Your task to perform on an android device: change the clock display to analog Image 0: 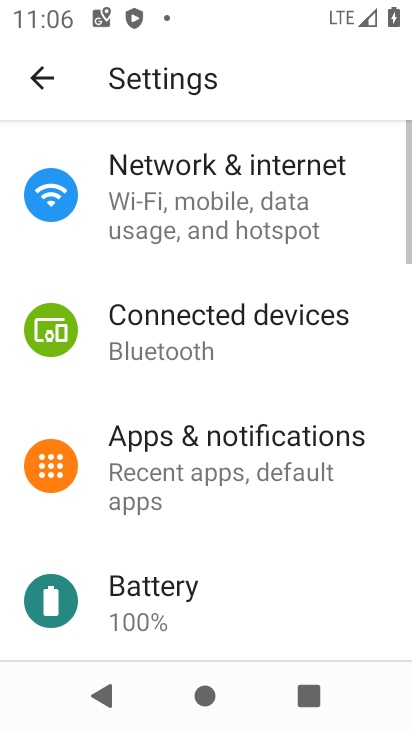
Step 0: press home button
Your task to perform on an android device: change the clock display to analog Image 1: 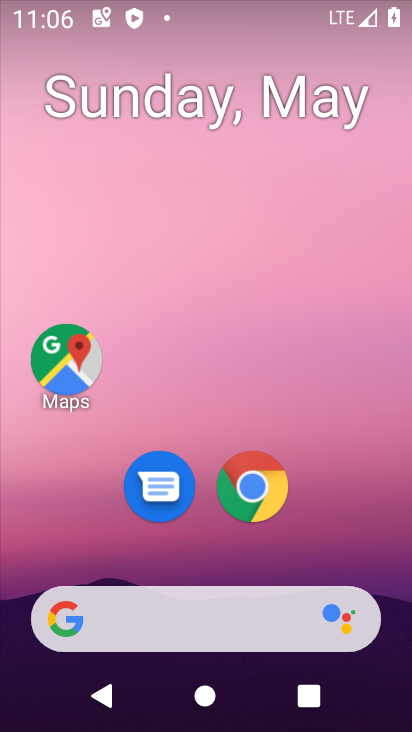
Step 1: drag from (280, 563) to (213, 170)
Your task to perform on an android device: change the clock display to analog Image 2: 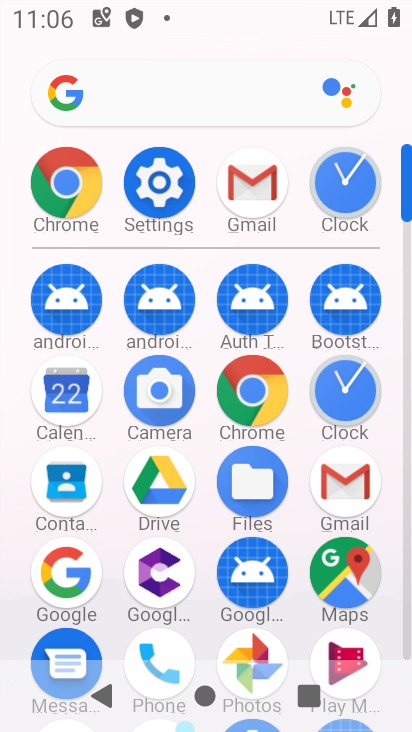
Step 2: click (353, 171)
Your task to perform on an android device: change the clock display to analog Image 3: 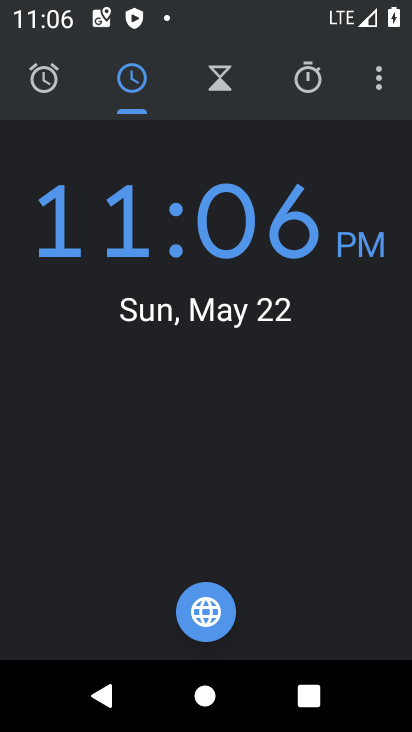
Step 3: click (383, 82)
Your task to perform on an android device: change the clock display to analog Image 4: 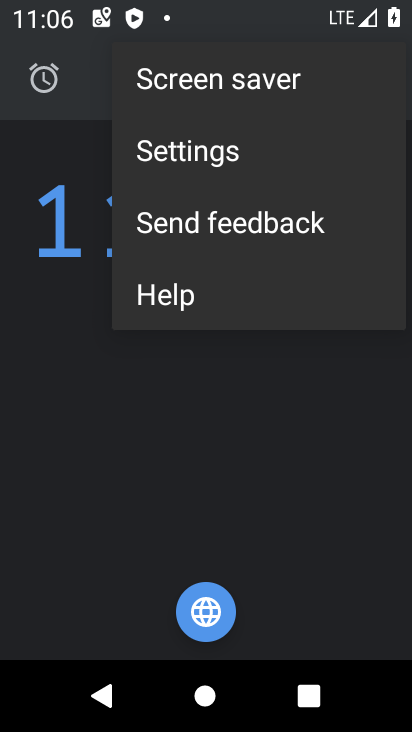
Step 4: click (240, 145)
Your task to perform on an android device: change the clock display to analog Image 5: 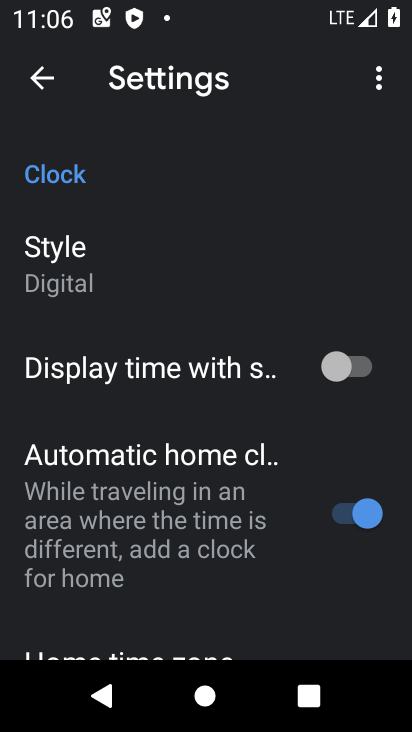
Step 5: click (84, 279)
Your task to perform on an android device: change the clock display to analog Image 6: 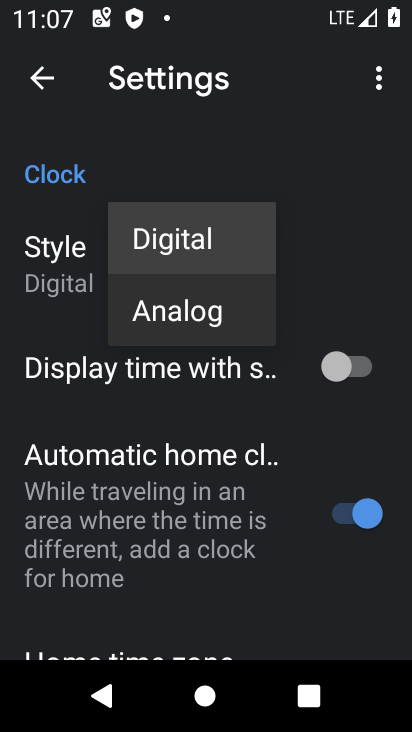
Step 6: click (170, 318)
Your task to perform on an android device: change the clock display to analog Image 7: 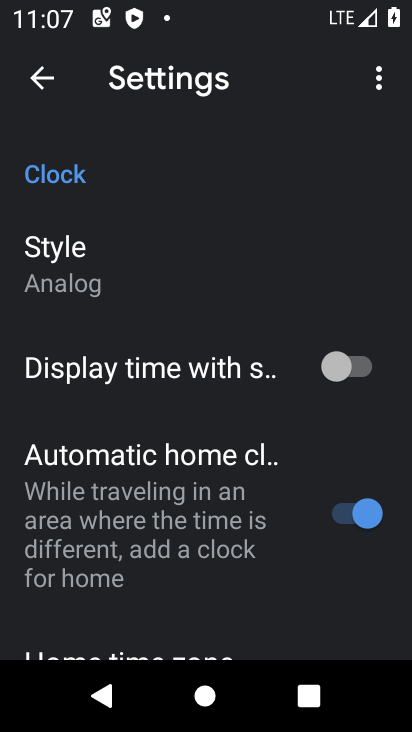
Step 7: task complete